Your task to perform on an android device: remove spam from my inbox in the gmail app Image 0: 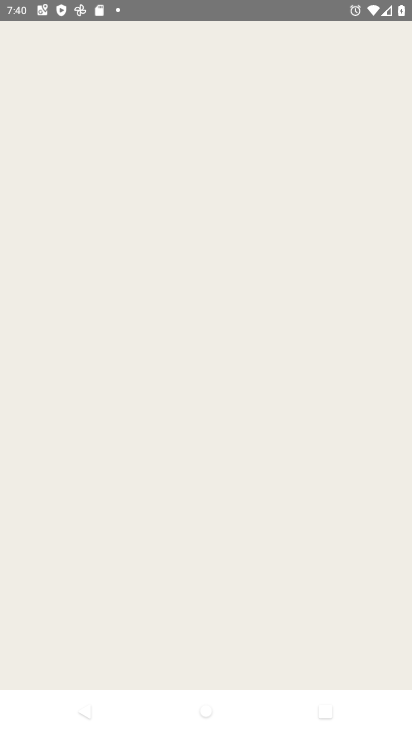
Step 0: drag from (326, 241) to (341, 44)
Your task to perform on an android device: remove spam from my inbox in the gmail app Image 1: 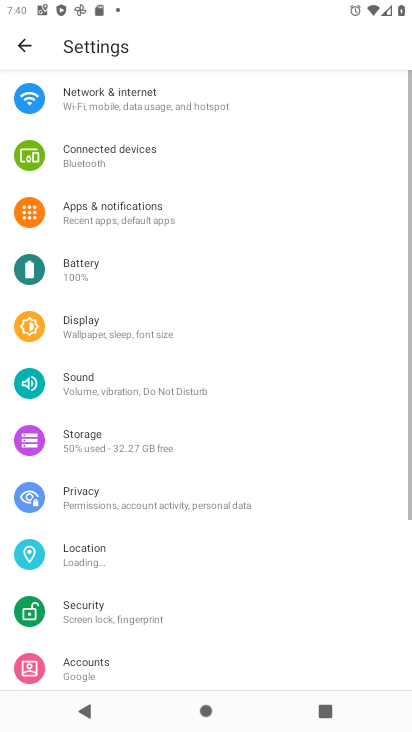
Step 1: press home button
Your task to perform on an android device: remove spam from my inbox in the gmail app Image 2: 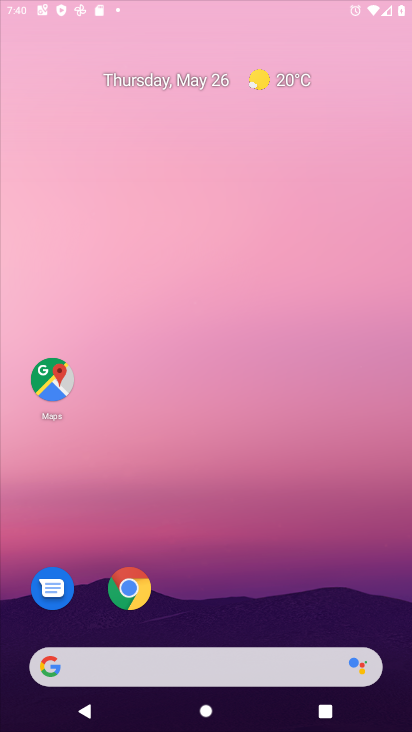
Step 2: drag from (339, 621) to (226, 49)
Your task to perform on an android device: remove spam from my inbox in the gmail app Image 3: 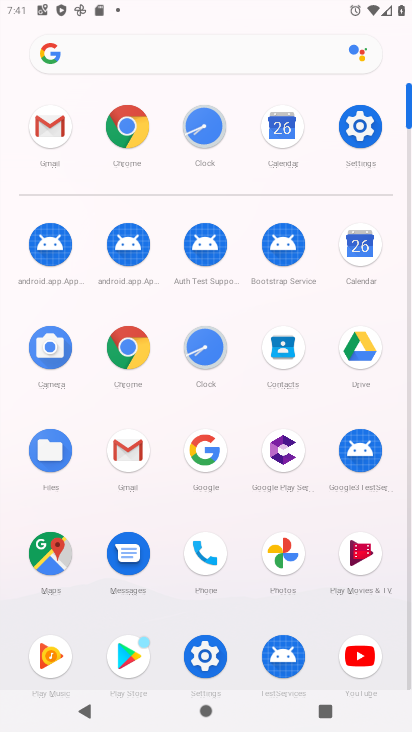
Step 3: click (125, 461)
Your task to perform on an android device: remove spam from my inbox in the gmail app Image 4: 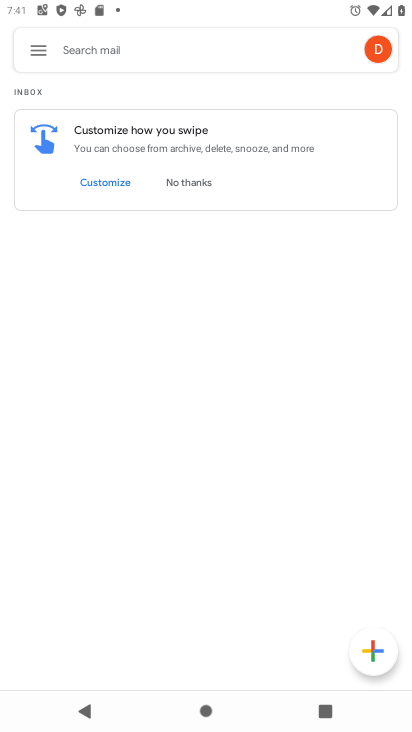
Step 4: task complete